Your task to perform on an android device: Open Android settings Image 0: 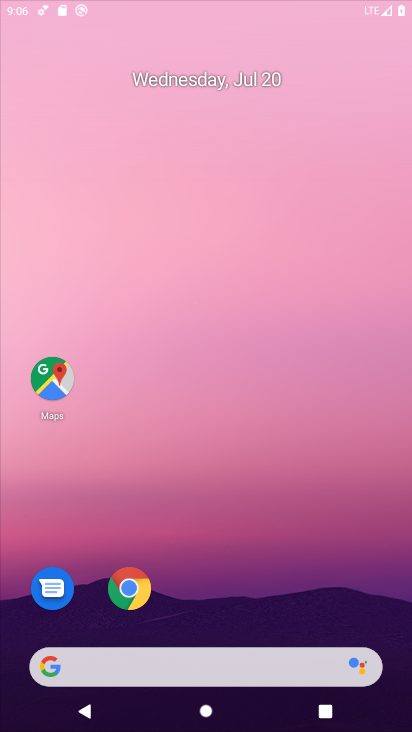
Step 0: press home button
Your task to perform on an android device: Open Android settings Image 1: 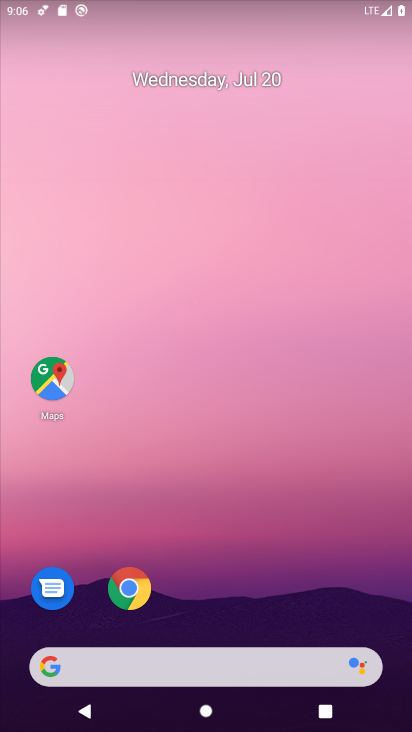
Step 1: drag from (210, 624) to (242, 44)
Your task to perform on an android device: Open Android settings Image 2: 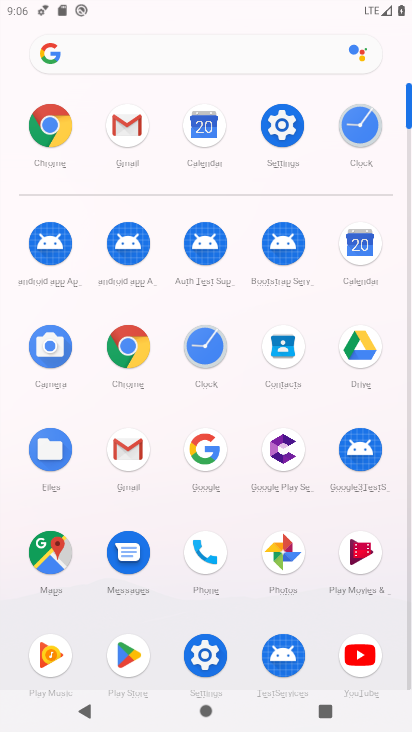
Step 2: click (280, 117)
Your task to perform on an android device: Open Android settings Image 3: 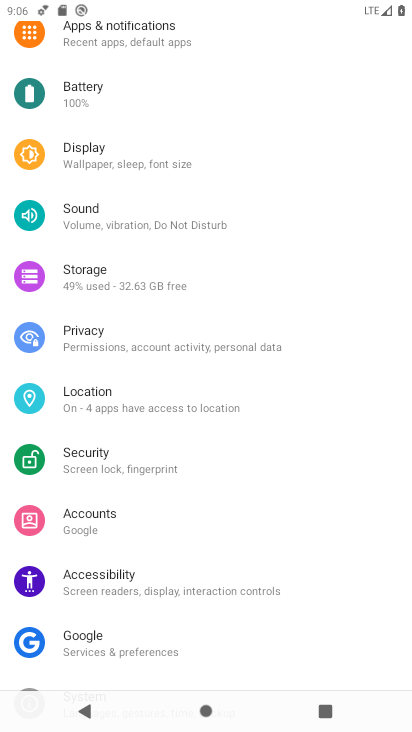
Step 3: drag from (153, 635) to (181, 246)
Your task to perform on an android device: Open Android settings Image 4: 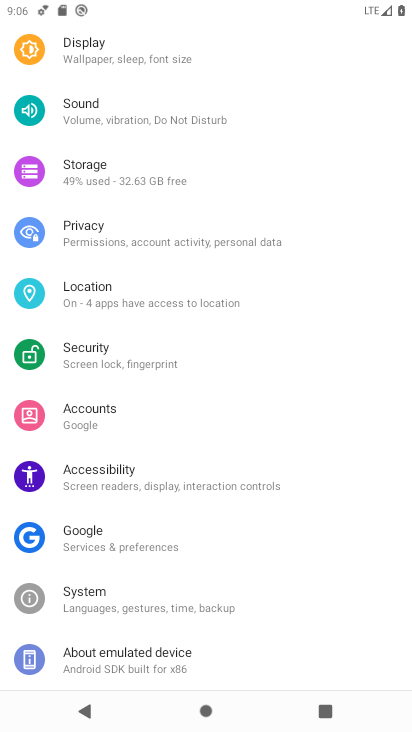
Step 4: click (212, 659)
Your task to perform on an android device: Open Android settings Image 5: 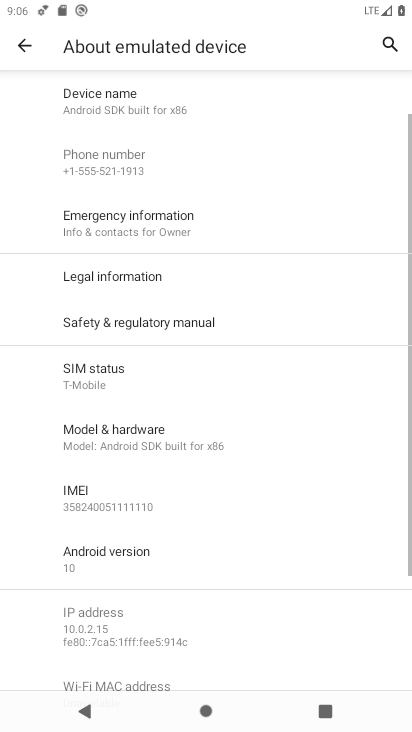
Step 5: click (130, 549)
Your task to perform on an android device: Open Android settings Image 6: 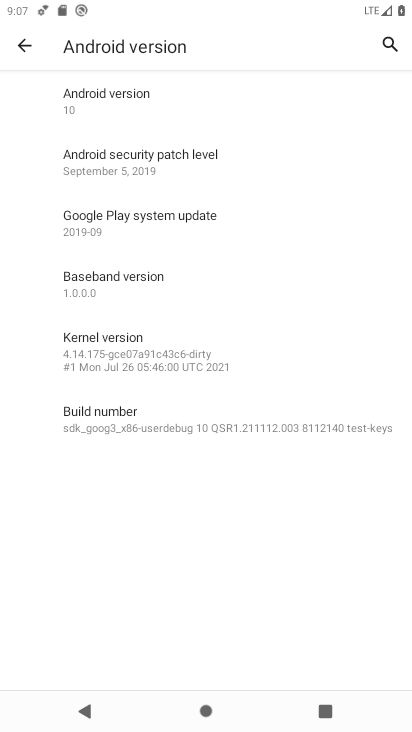
Step 6: task complete